Your task to perform on an android device: snooze an email in the gmail app Image 0: 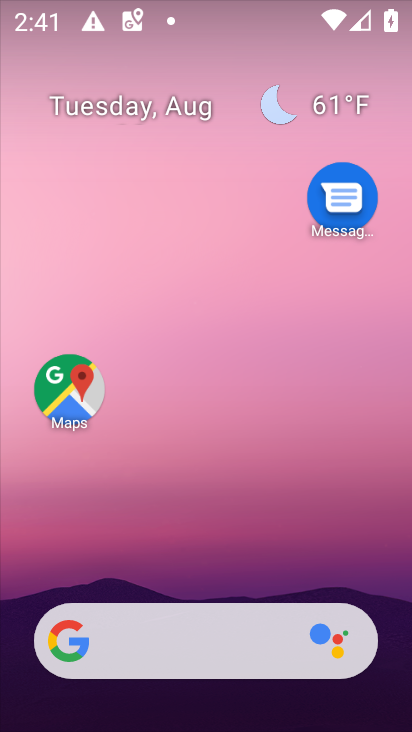
Step 0: drag from (220, 586) to (237, 2)
Your task to perform on an android device: snooze an email in the gmail app Image 1: 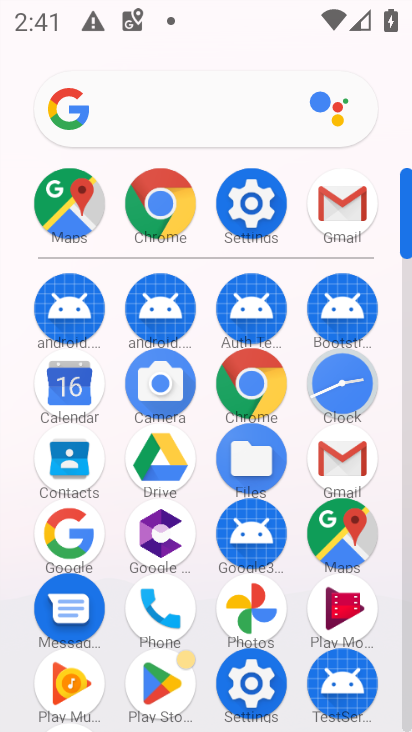
Step 1: click (349, 208)
Your task to perform on an android device: snooze an email in the gmail app Image 2: 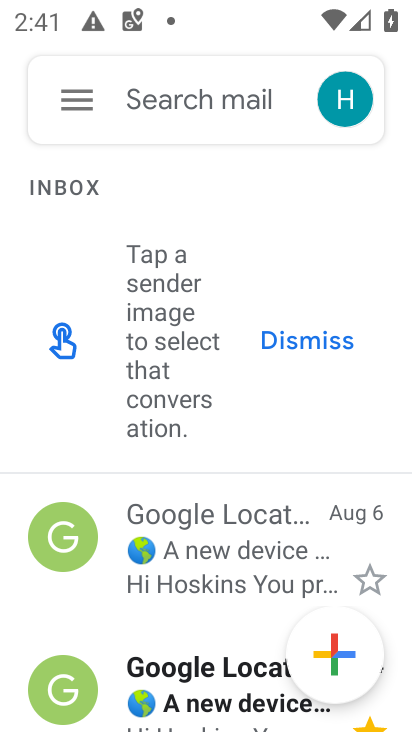
Step 2: click (76, 129)
Your task to perform on an android device: snooze an email in the gmail app Image 3: 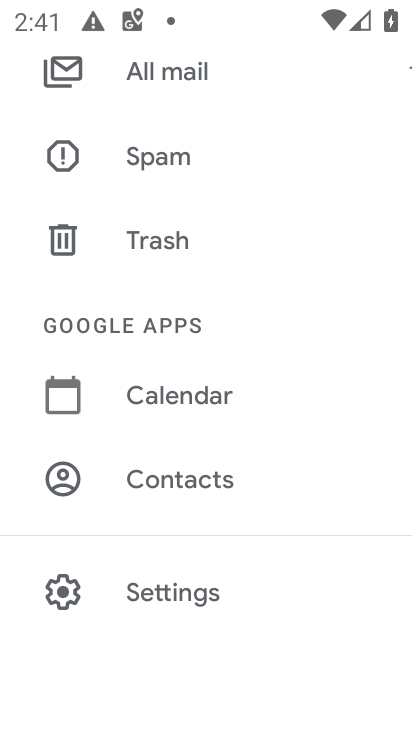
Step 3: drag from (189, 169) to (240, 598)
Your task to perform on an android device: snooze an email in the gmail app Image 4: 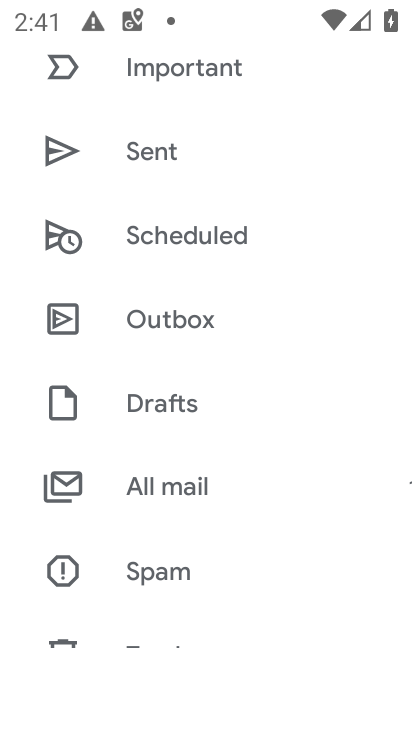
Step 4: click (216, 501)
Your task to perform on an android device: snooze an email in the gmail app Image 5: 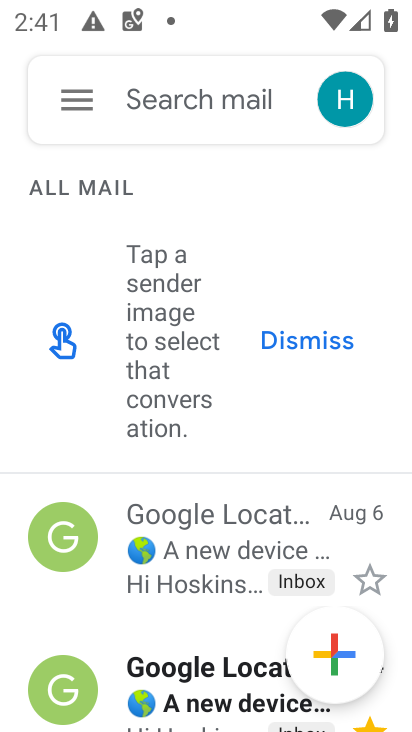
Step 5: click (279, 548)
Your task to perform on an android device: snooze an email in the gmail app Image 6: 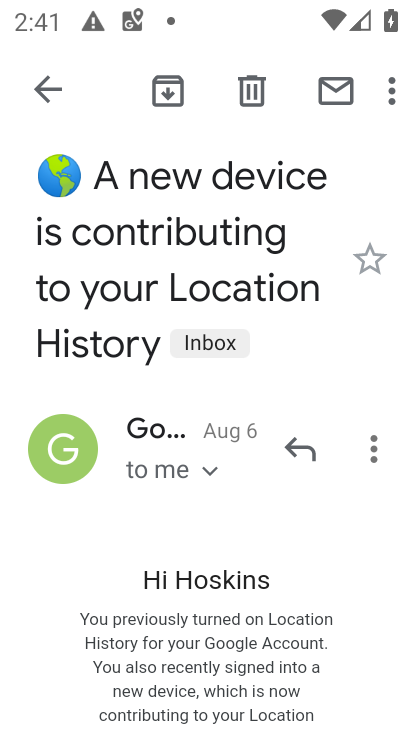
Step 6: click (400, 90)
Your task to perform on an android device: snooze an email in the gmail app Image 7: 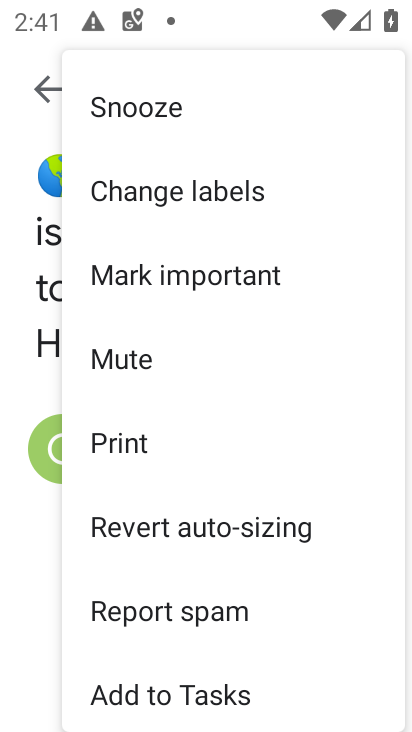
Step 7: click (187, 126)
Your task to perform on an android device: snooze an email in the gmail app Image 8: 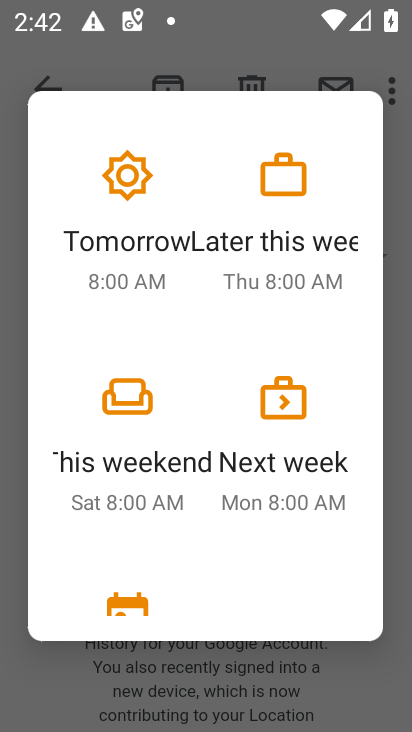
Step 8: click (145, 225)
Your task to perform on an android device: snooze an email in the gmail app Image 9: 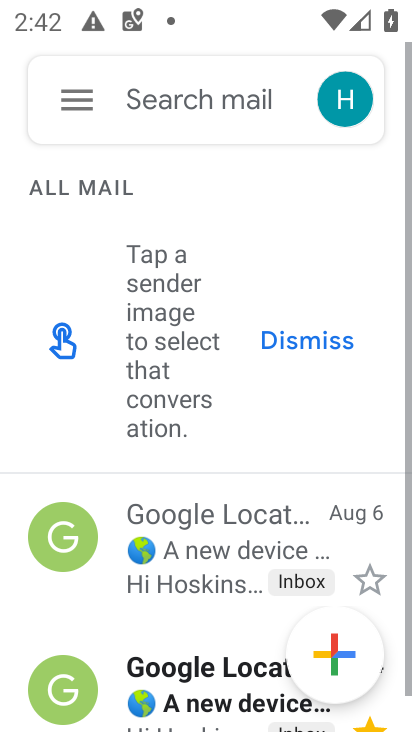
Step 9: task complete